Your task to perform on an android device: Show me the alarms in the clock app Image 0: 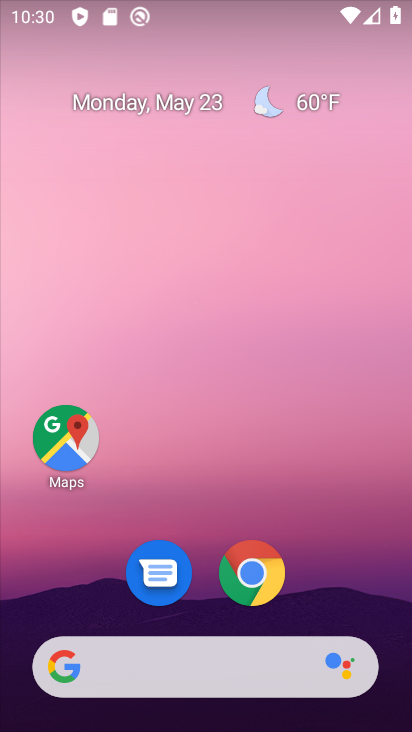
Step 0: drag from (325, 586) to (225, 55)
Your task to perform on an android device: Show me the alarms in the clock app Image 1: 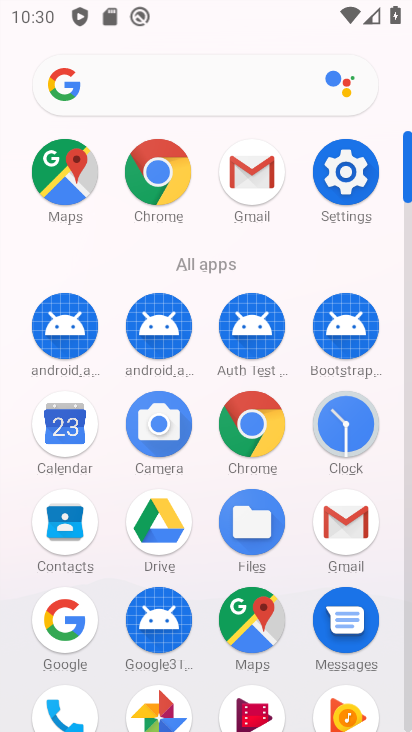
Step 1: drag from (9, 540) to (44, 160)
Your task to perform on an android device: Show me the alarms in the clock app Image 2: 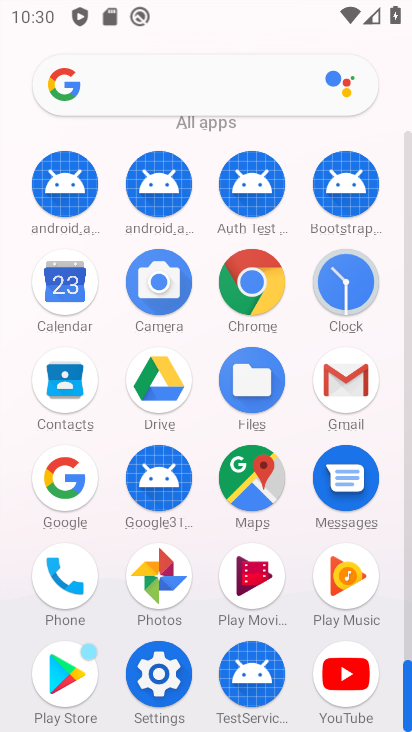
Step 2: click (342, 279)
Your task to perform on an android device: Show me the alarms in the clock app Image 3: 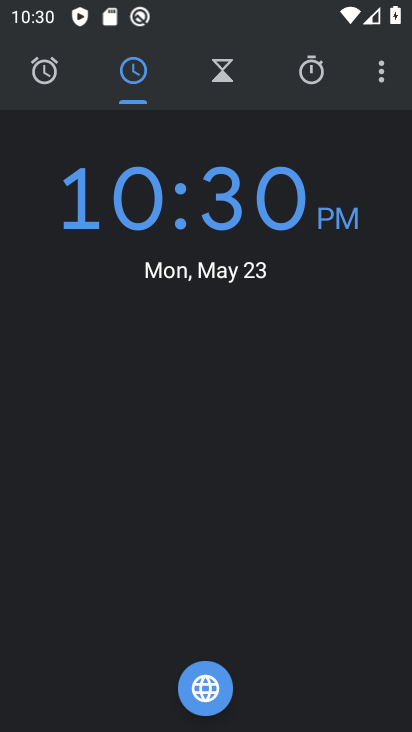
Step 3: click (69, 69)
Your task to perform on an android device: Show me the alarms in the clock app Image 4: 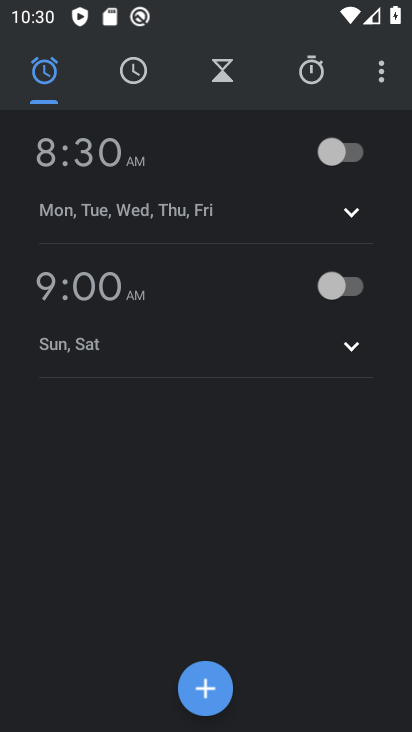
Step 4: task complete